Your task to perform on an android device: Find coffee shops on Maps Image 0: 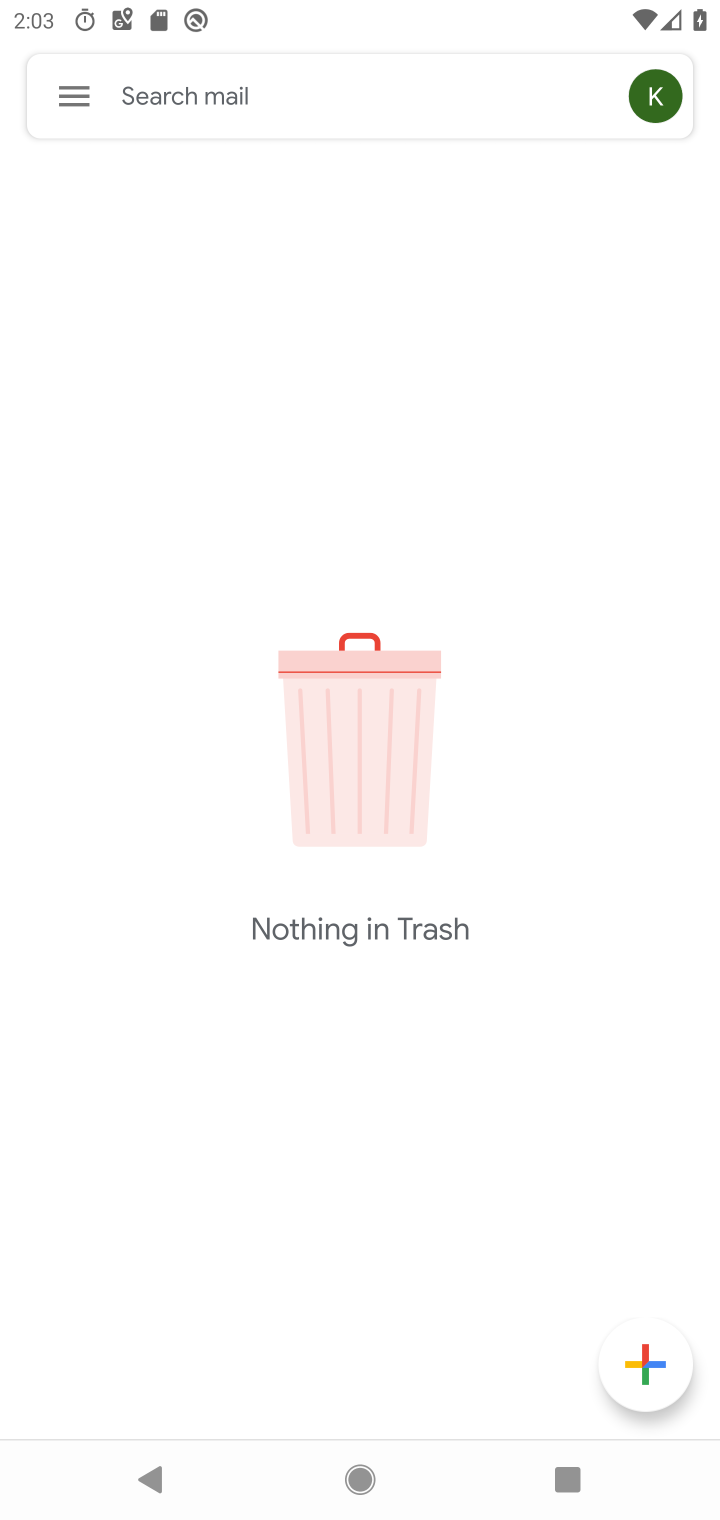
Step 0: press home button
Your task to perform on an android device: Find coffee shops on Maps Image 1: 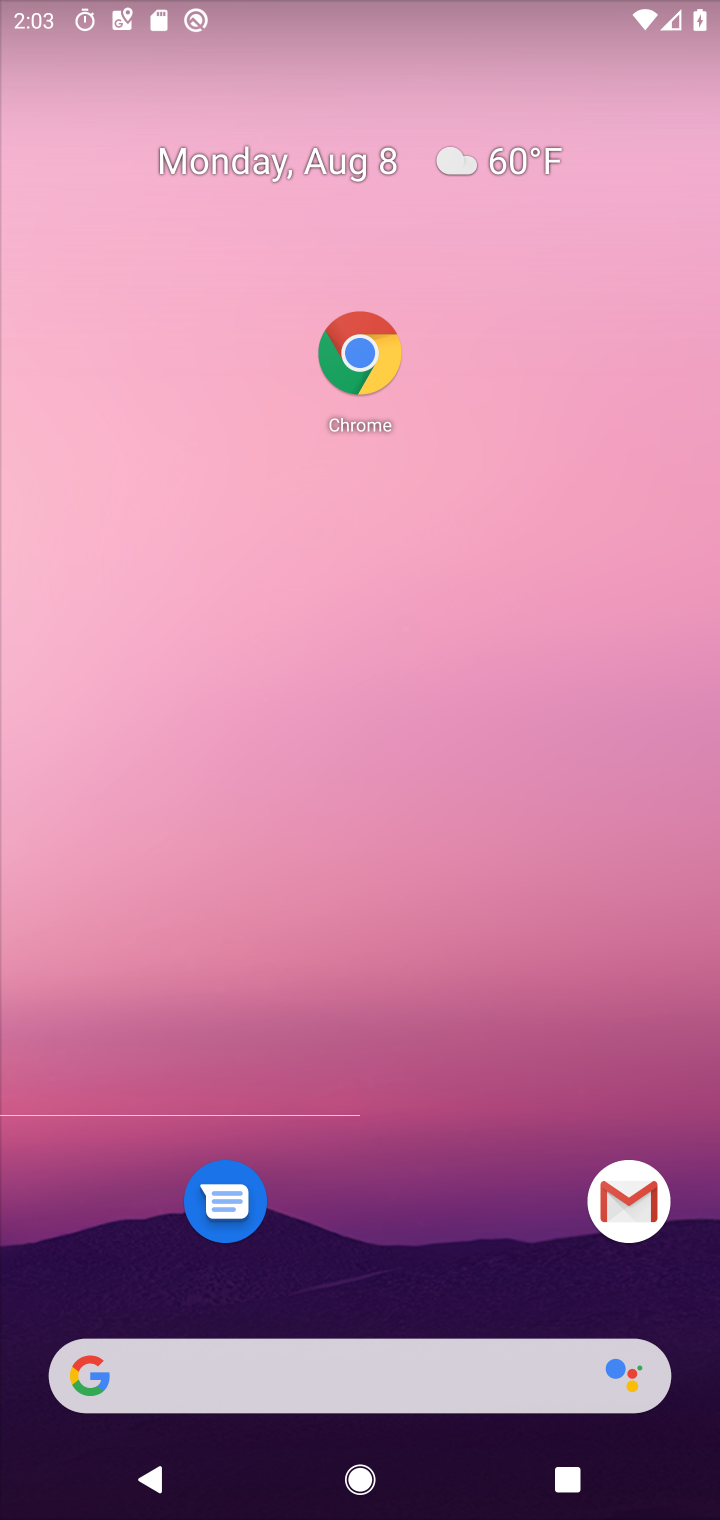
Step 1: drag from (484, 1445) to (614, 466)
Your task to perform on an android device: Find coffee shops on Maps Image 2: 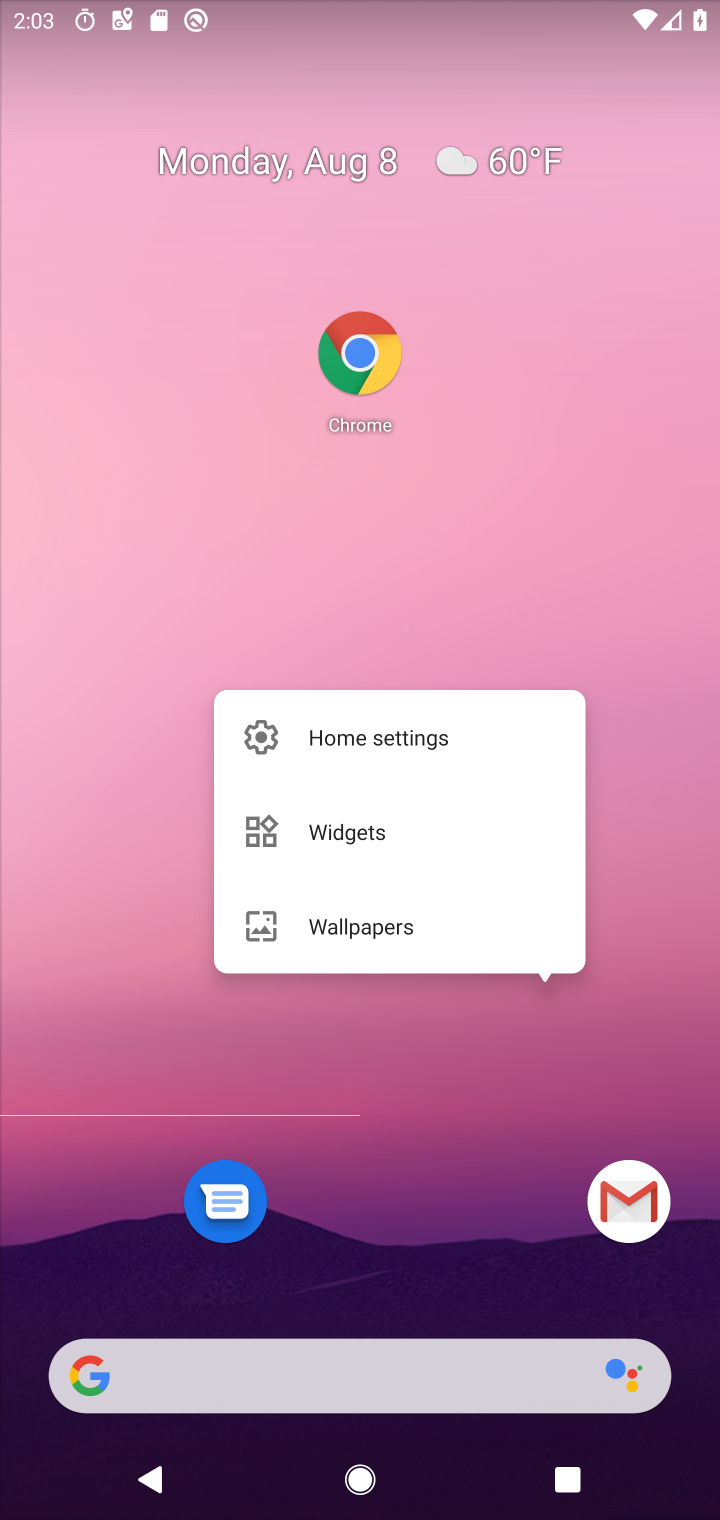
Step 2: click (421, 1175)
Your task to perform on an android device: Find coffee shops on Maps Image 3: 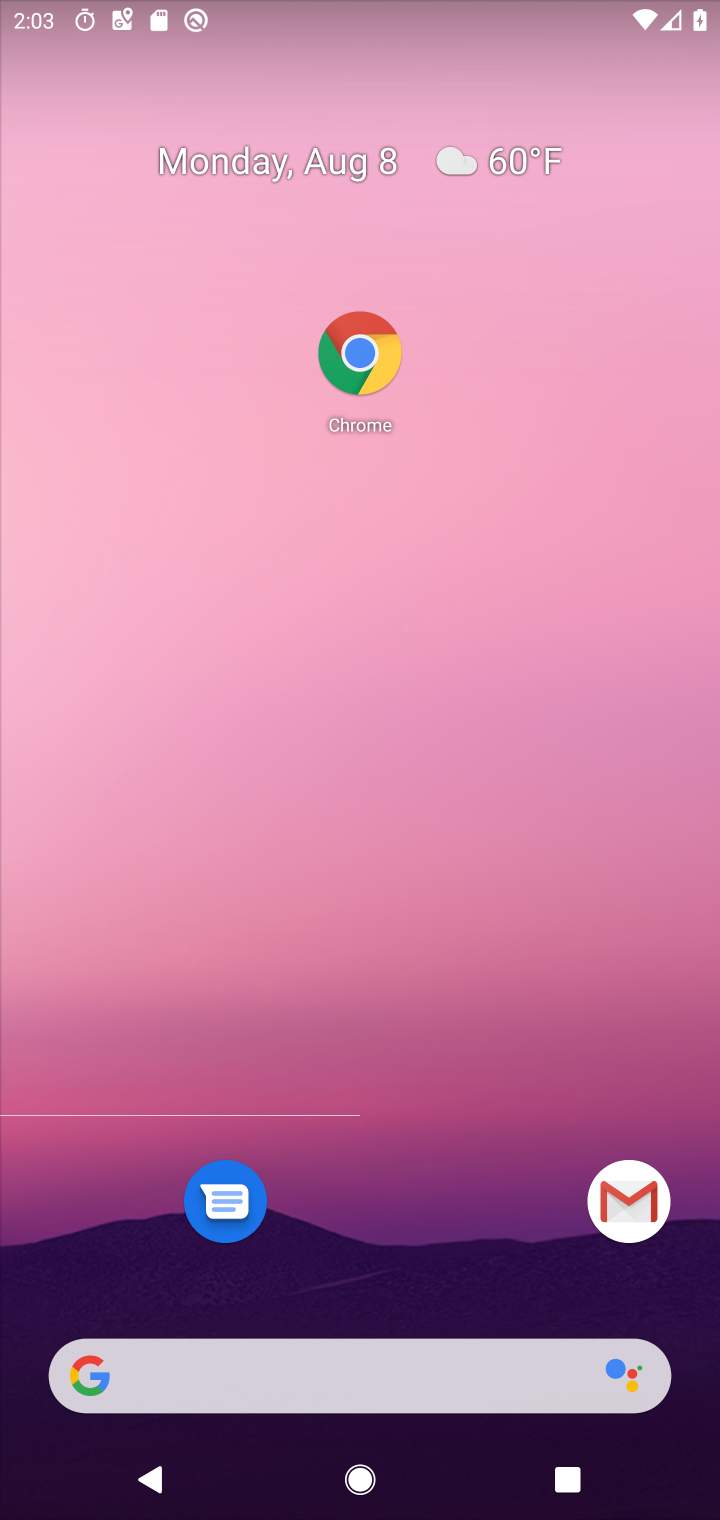
Step 3: drag from (401, 1361) to (683, 376)
Your task to perform on an android device: Find coffee shops on Maps Image 4: 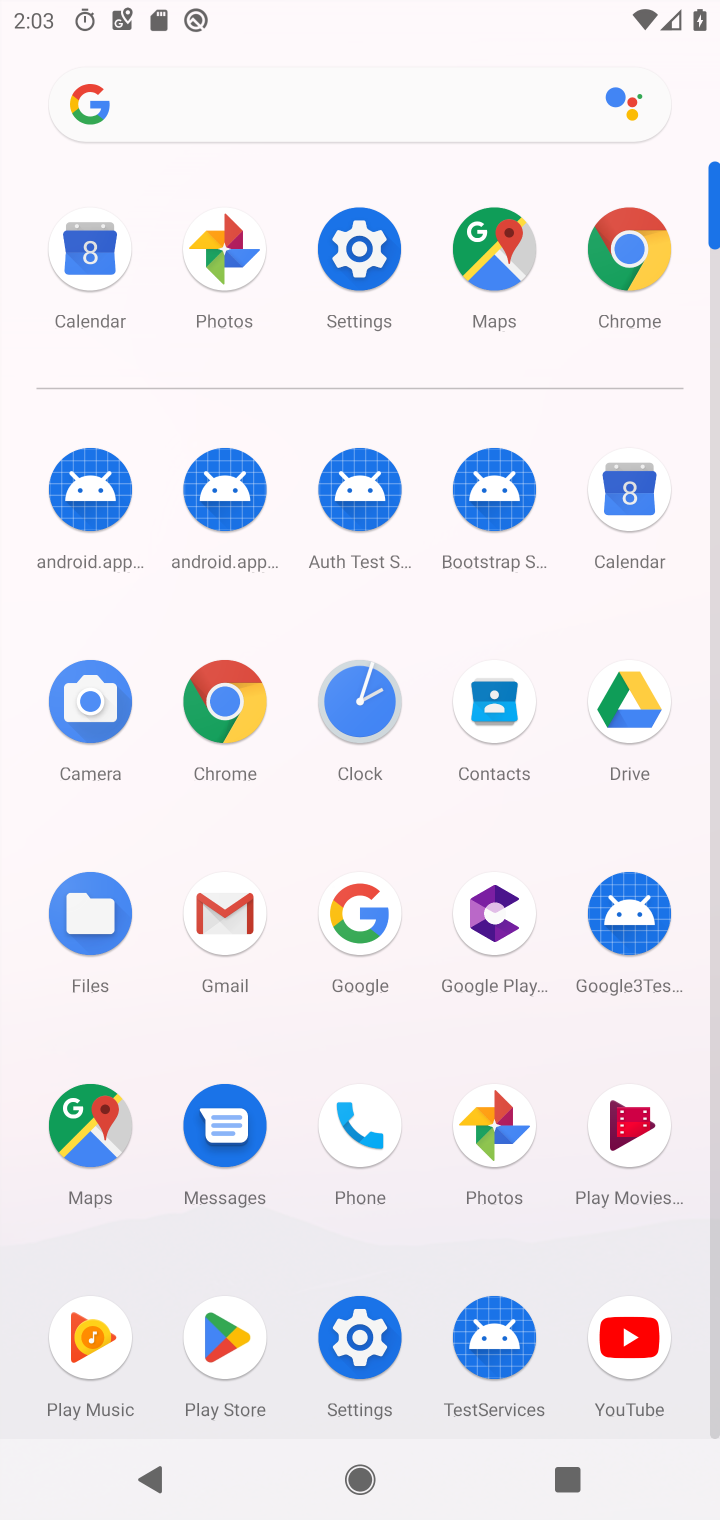
Step 4: click (86, 1166)
Your task to perform on an android device: Find coffee shops on Maps Image 5: 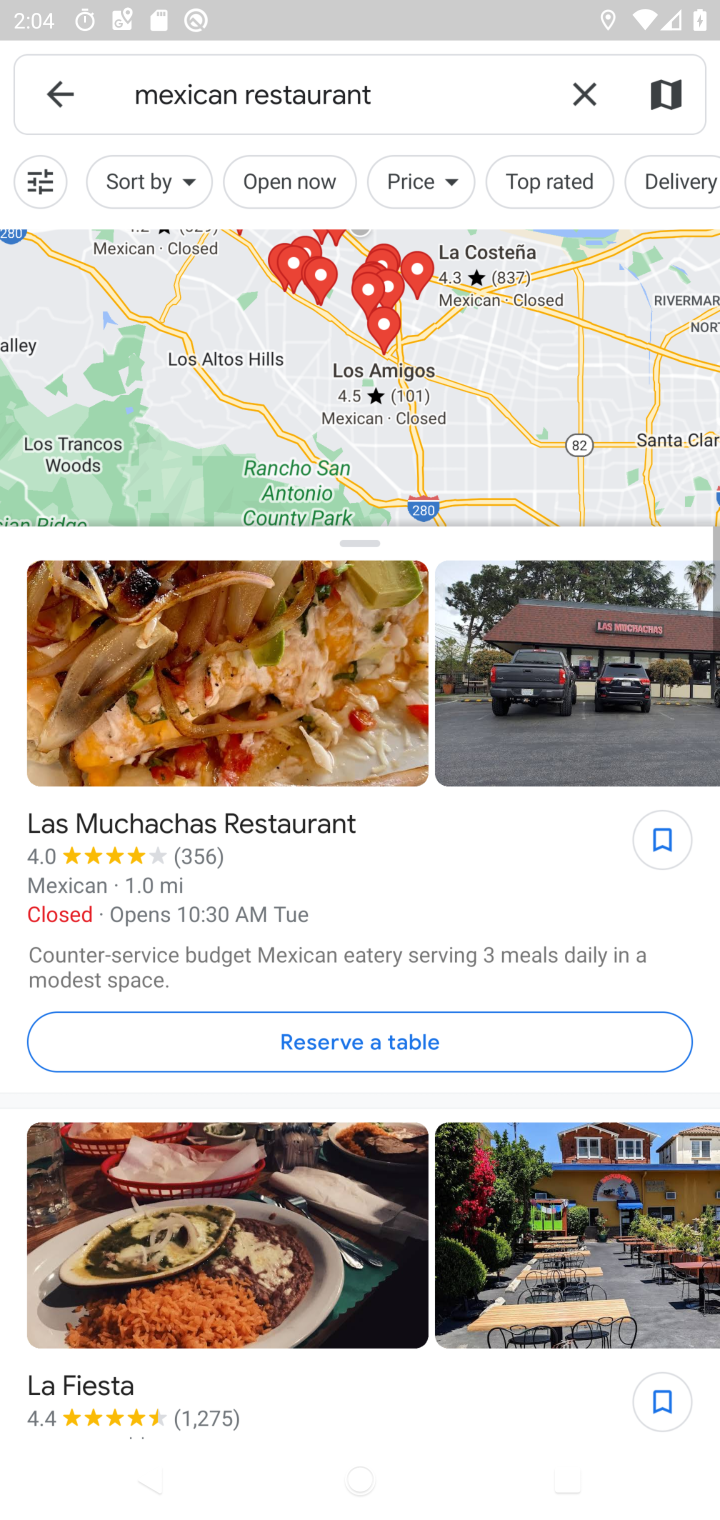
Step 5: click (56, 94)
Your task to perform on an android device: Find coffee shops on Maps Image 6: 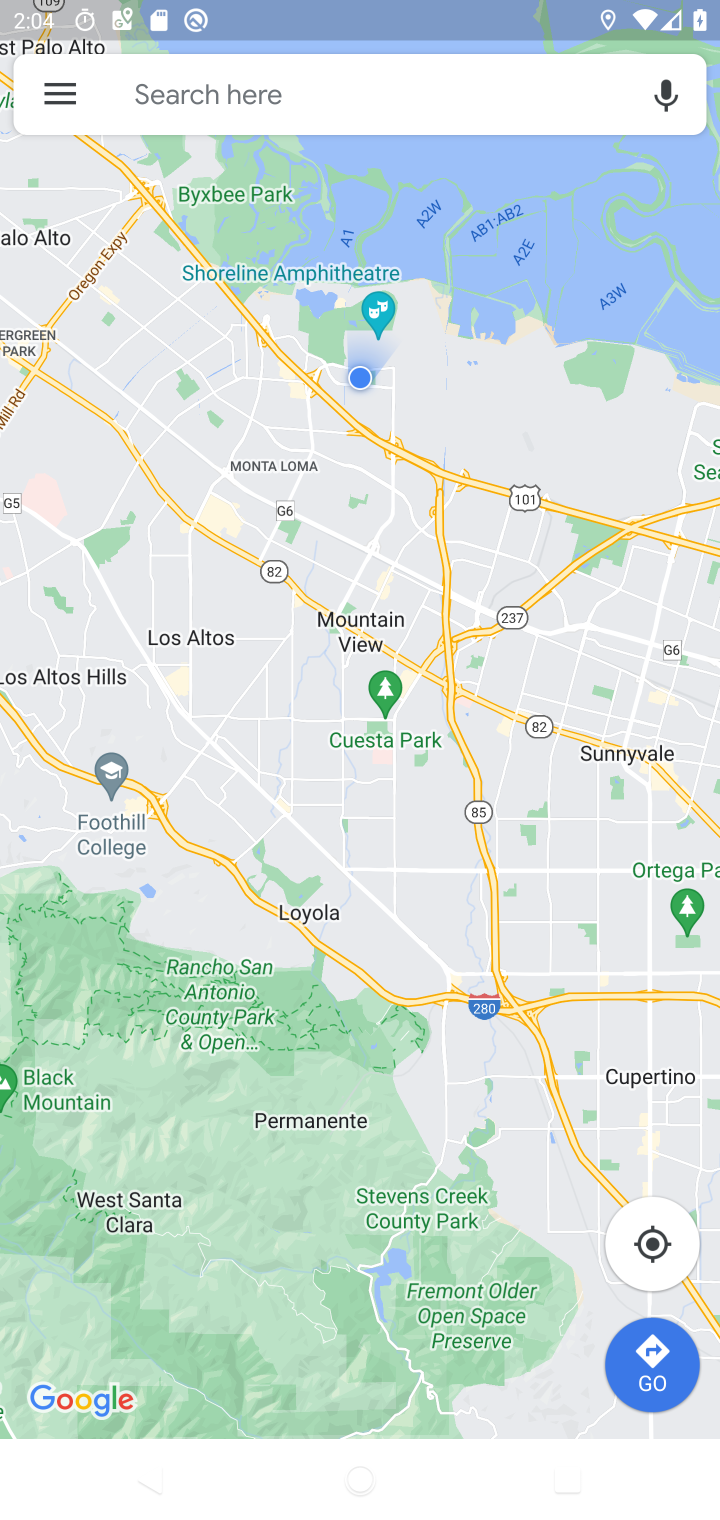
Step 6: click (54, 79)
Your task to perform on an android device: Find coffee shops on Maps Image 7: 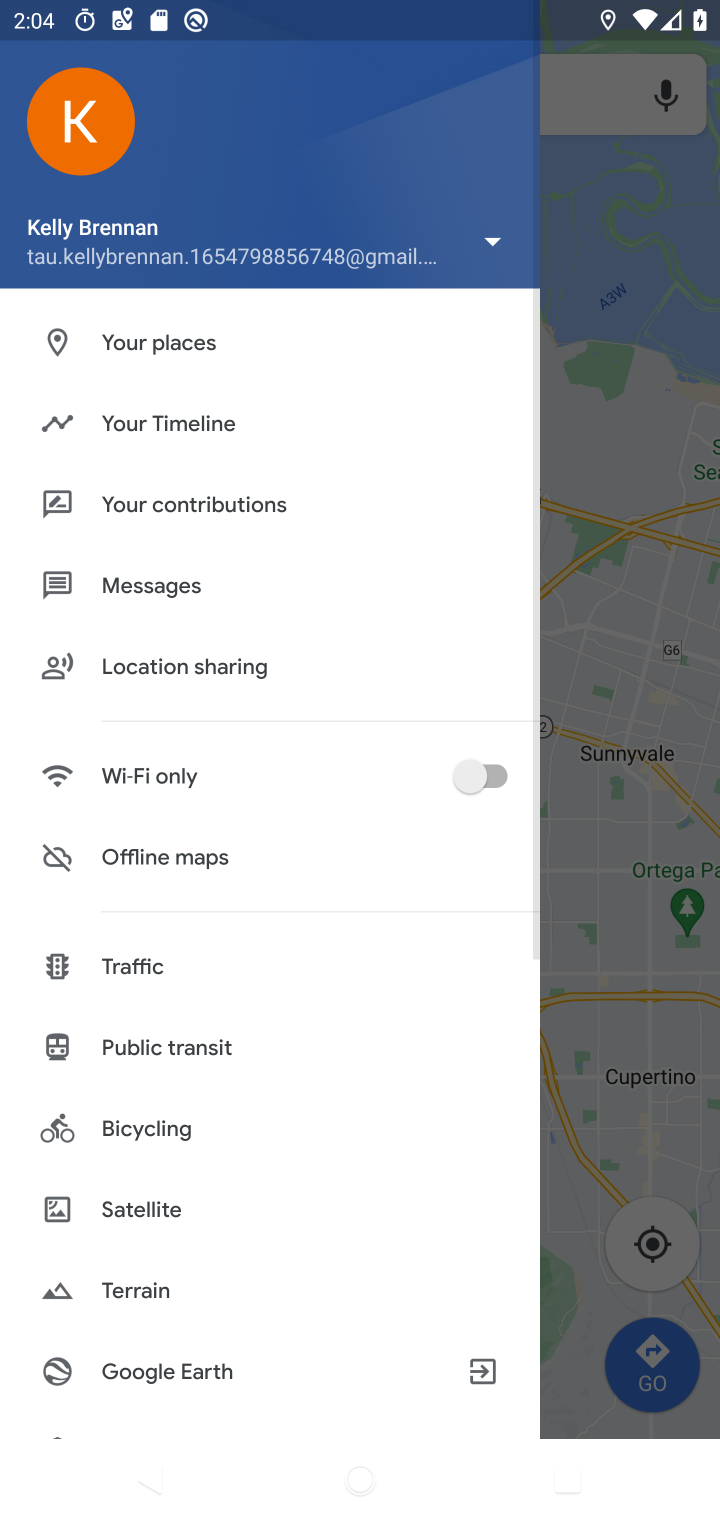
Step 7: click (676, 246)
Your task to perform on an android device: Find coffee shops on Maps Image 8: 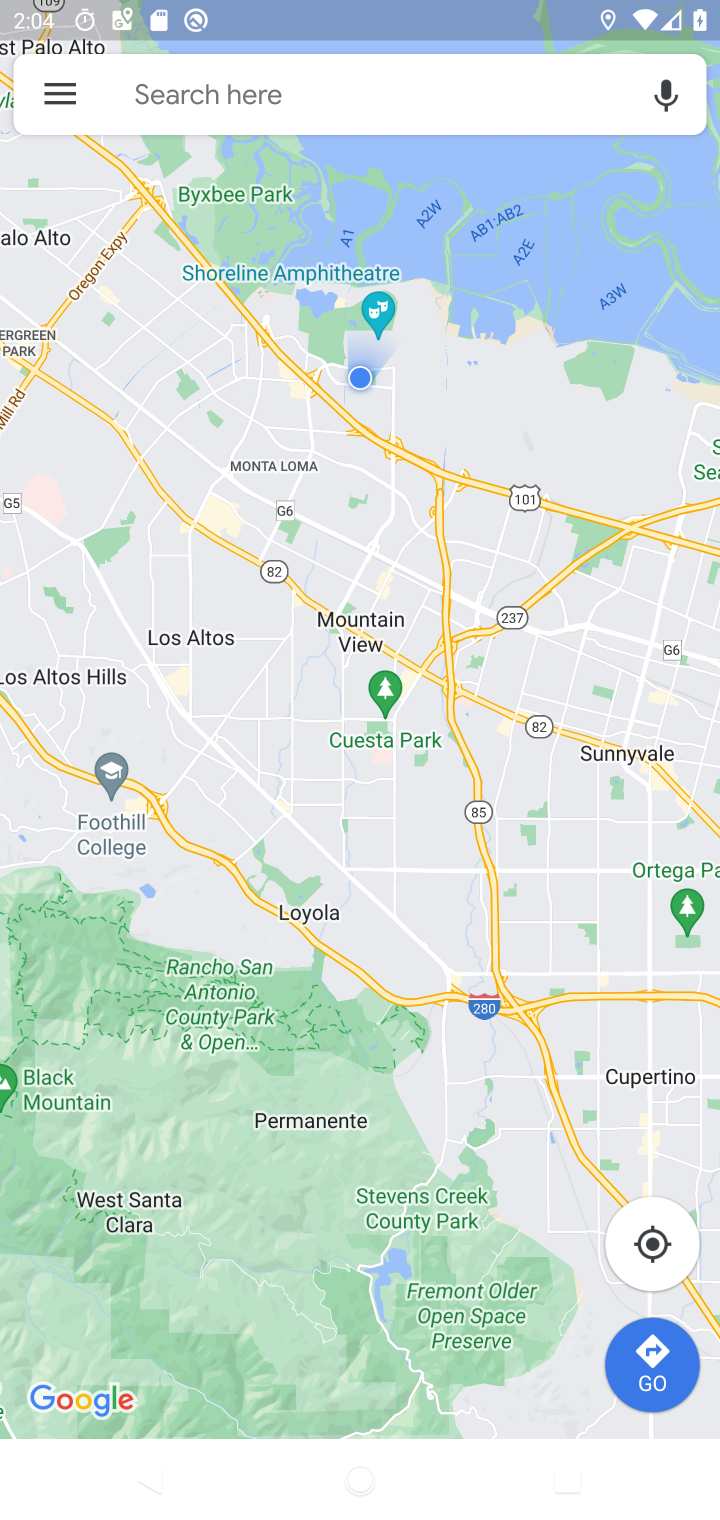
Step 8: click (487, 84)
Your task to perform on an android device: Find coffee shops on Maps Image 9: 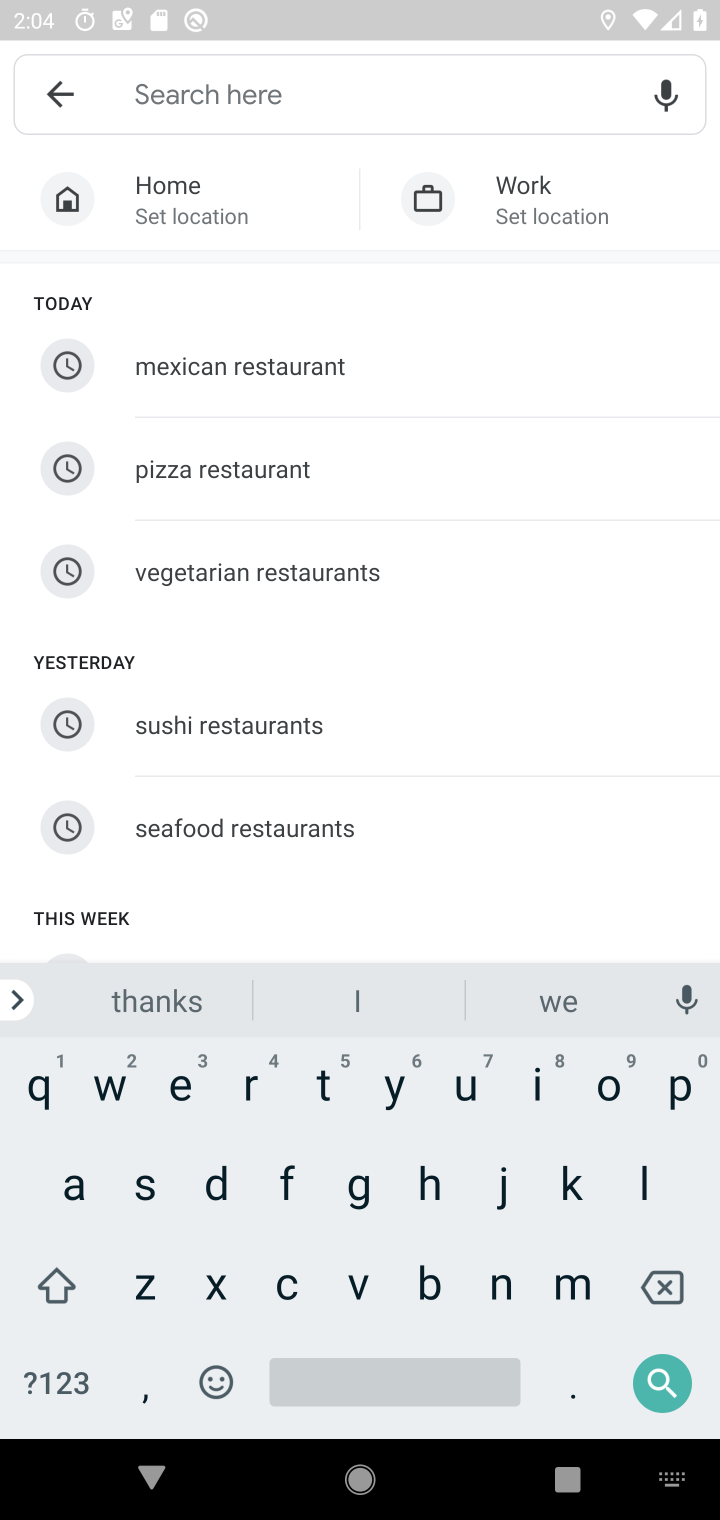
Step 9: click (269, 1290)
Your task to perform on an android device: Find coffee shops on Maps Image 10: 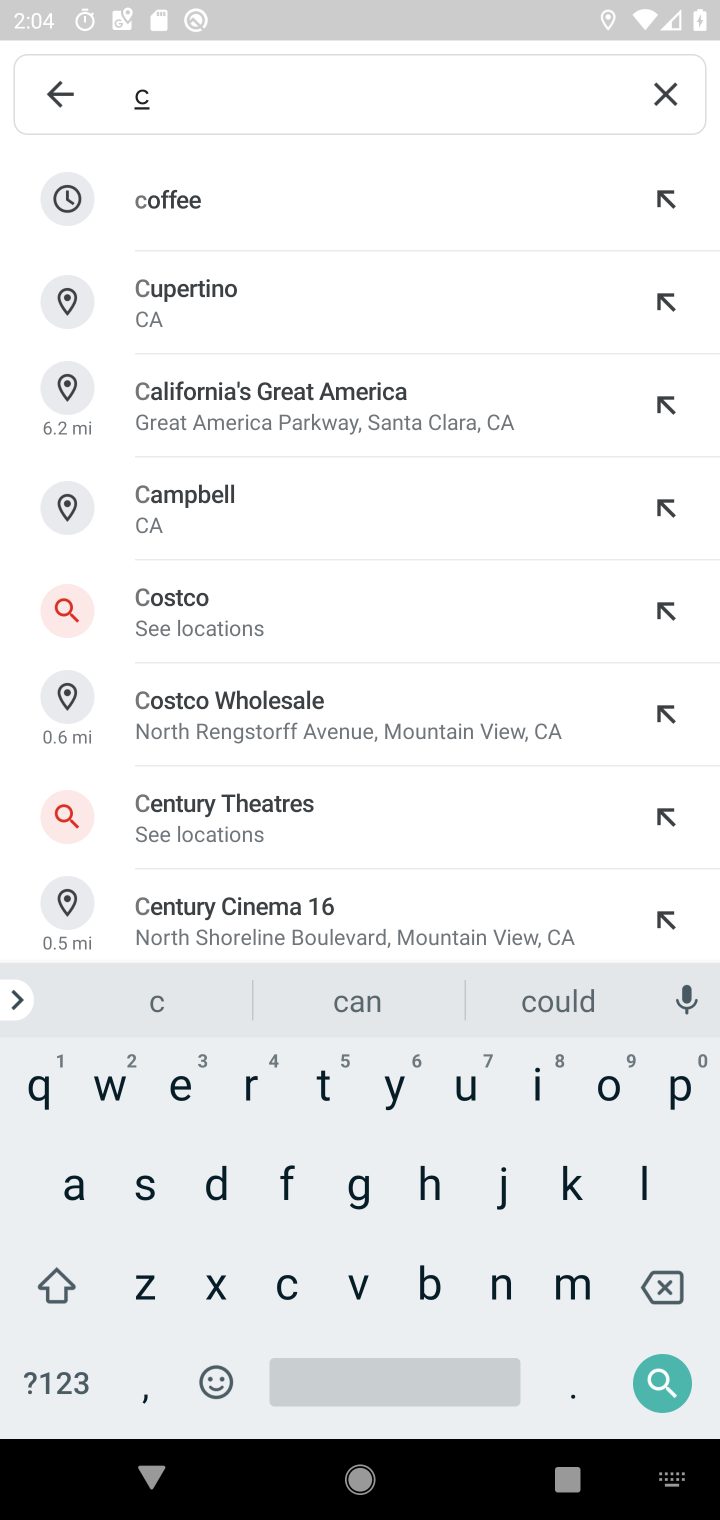
Step 10: click (321, 183)
Your task to perform on an android device: Find coffee shops on Maps Image 11: 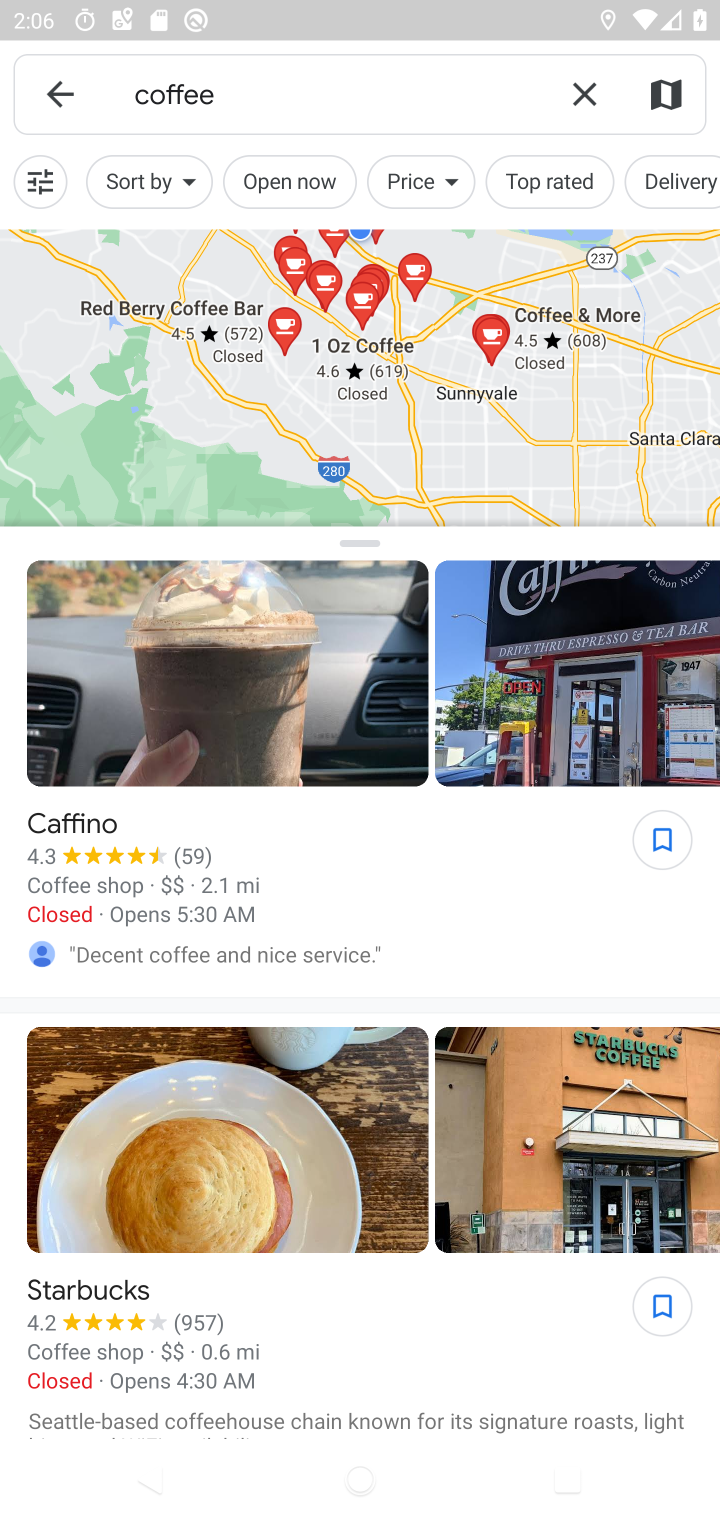
Step 11: task complete